Your task to perform on an android device: set the timer Image 0: 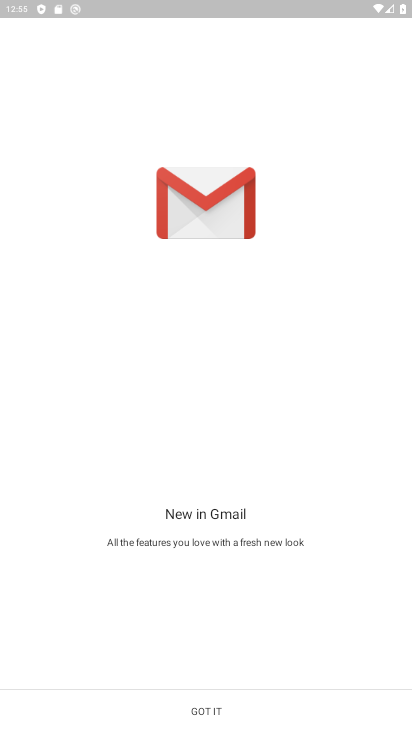
Step 0: press home button
Your task to perform on an android device: set the timer Image 1: 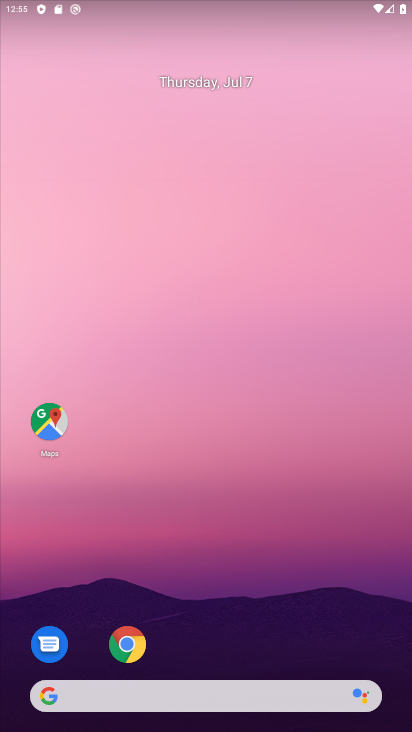
Step 1: drag from (215, 682) to (96, 325)
Your task to perform on an android device: set the timer Image 2: 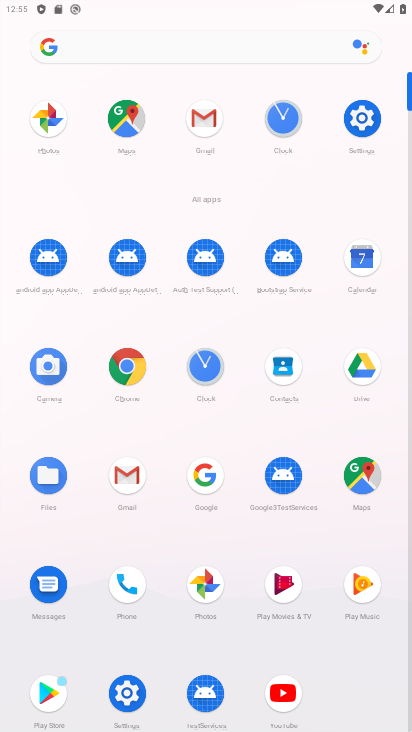
Step 2: click (203, 370)
Your task to perform on an android device: set the timer Image 3: 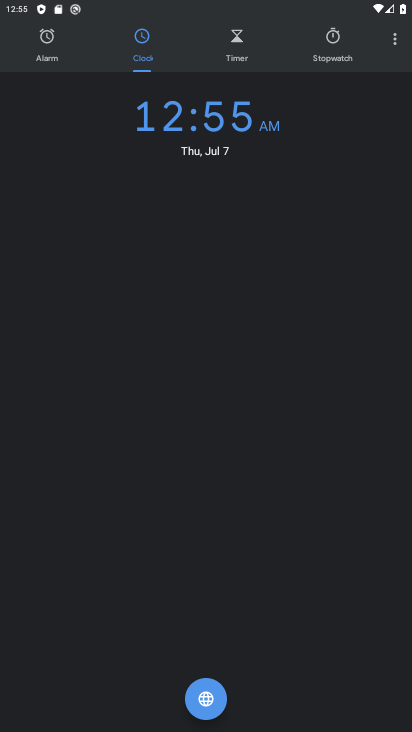
Step 3: click (250, 44)
Your task to perform on an android device: set the timer Image 4: 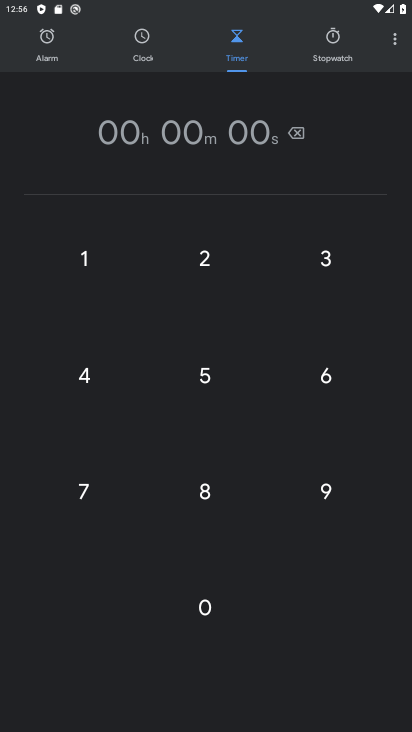
Step 4: click (213, 362)
Your task to perform on an android device: set the timer Image 5: 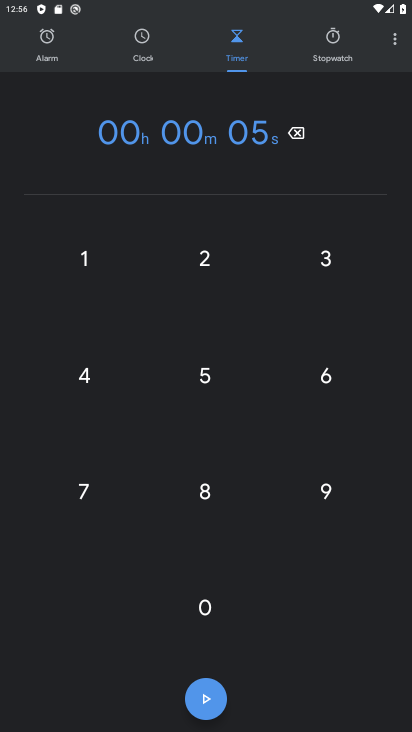
Step 5: click (315, 384)
Your task to perform on an android device: set the timer Image 6: 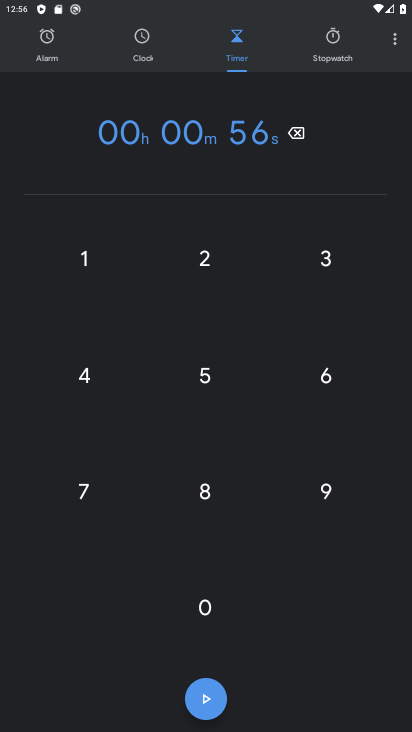
Step 6: click (345, 507)
Your task to perform on an android device: set the timer Image 7: 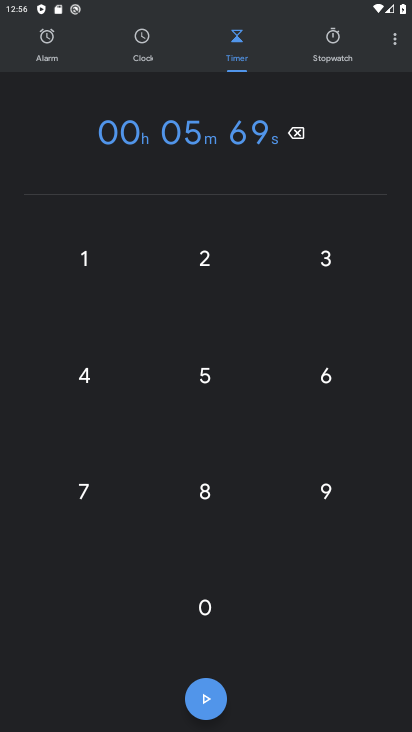
Step 7: click (213, 506)
Your task to perform on an android device: set the timer Image 8: 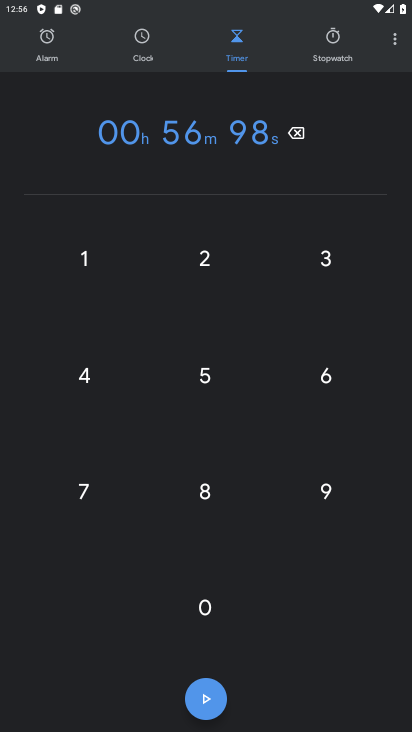
Step 8: task complete